Your task to perform on an android device: Do I have any events tomorrow? Image 0: 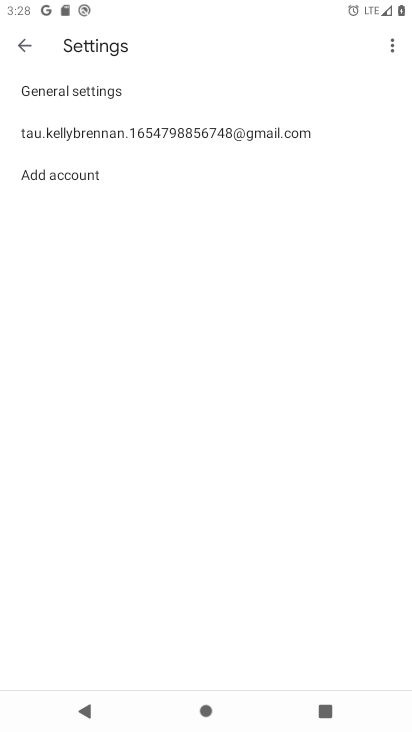
Step 0: press home button
Your task to perform on an android device: Do I have any events tomorrow? Image 1: 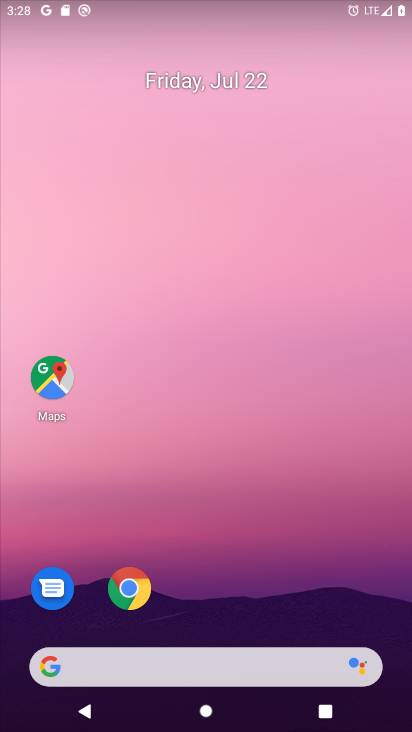
Step 1: drag from (296, 474) to (304, 13)
Your task to perform on an android device: Do I have any events tomorrow? Image 2: 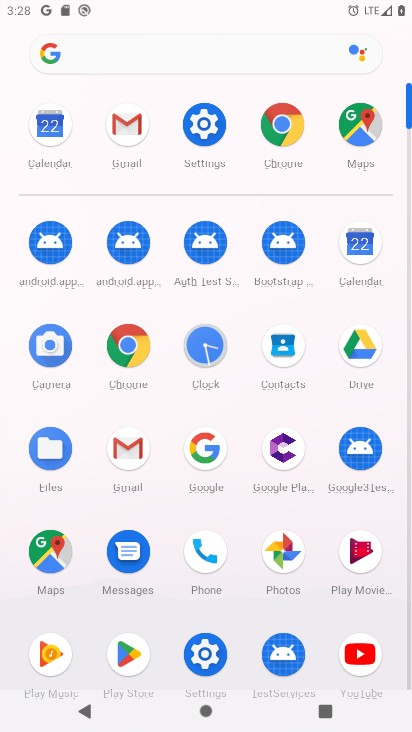
Step 2: click (50, 125)
Your task to perform on an android device: Do I have any events tomorrow? Image 3: 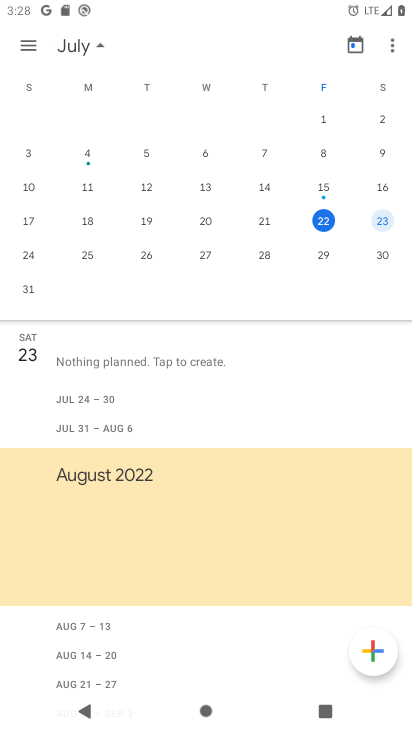
Step 3: click (377, 218)
Your task to perform on an android device: Do I have any events tomorrow? Image 4: 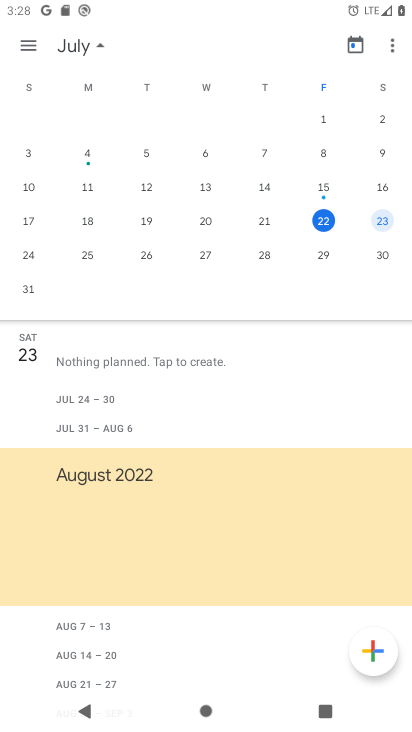
Step 4: task complete